Your task to perform on an android device: What's the news in Guyana? Image 0: 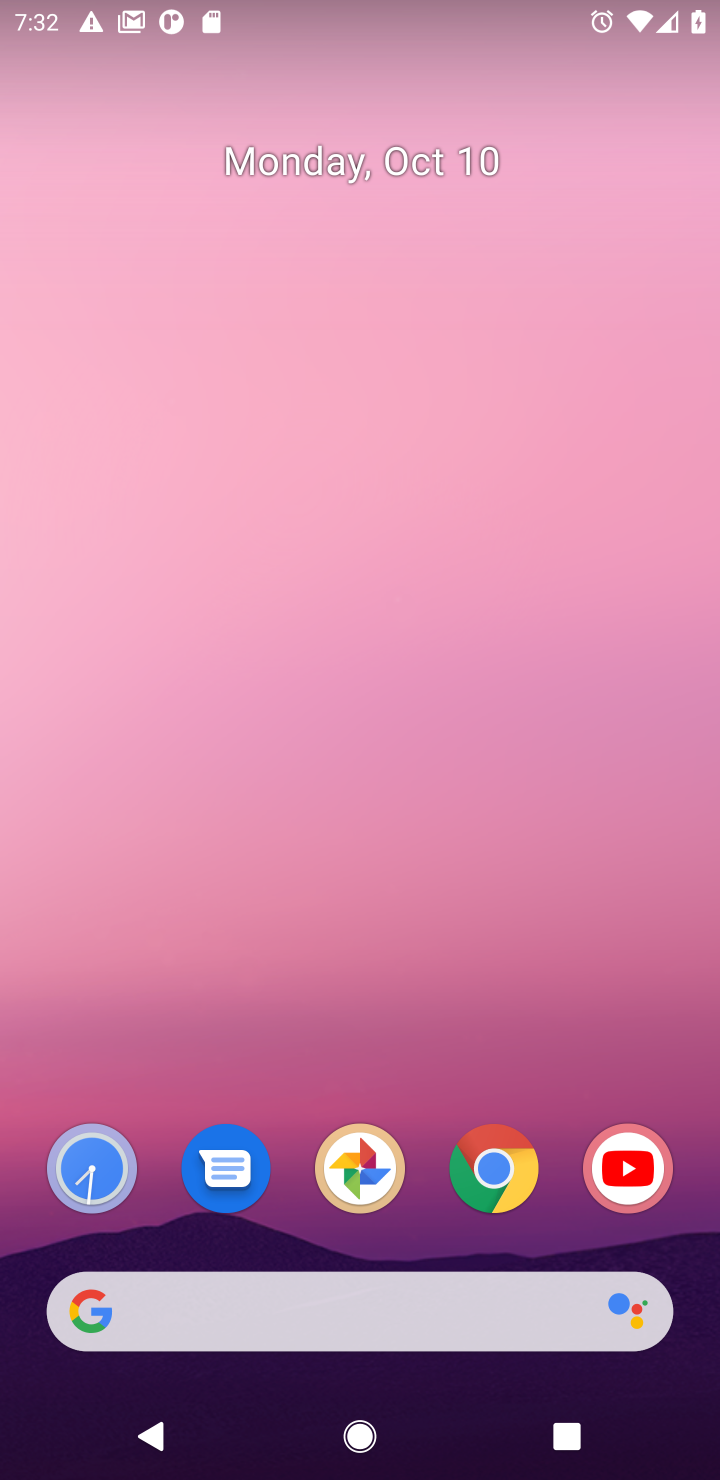
Step 0: click (262, 1316)
Your task to perform on an android device: What's the news in Guyana? Image 1: 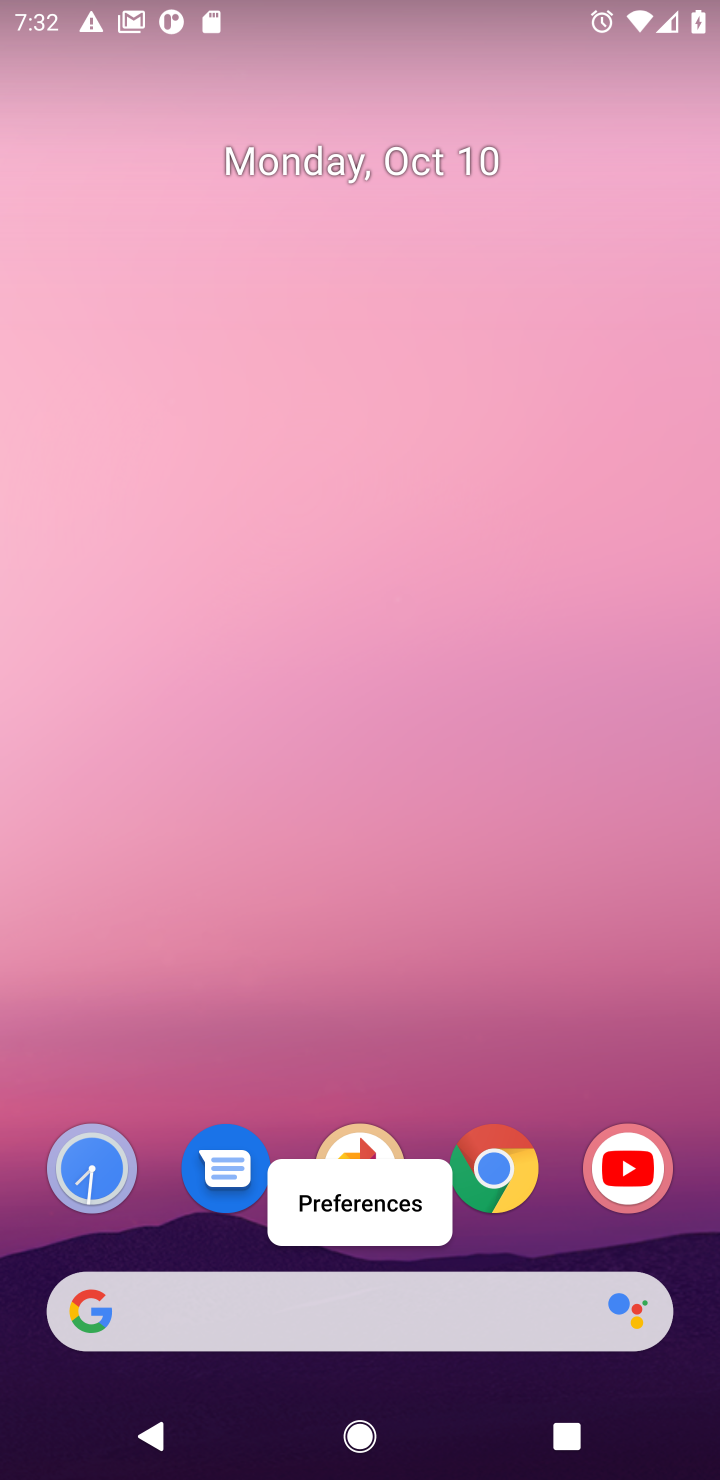
Step 1: click (168, 1289)
Your task to perform on an android device: What's the news in Guyana? Image 2: 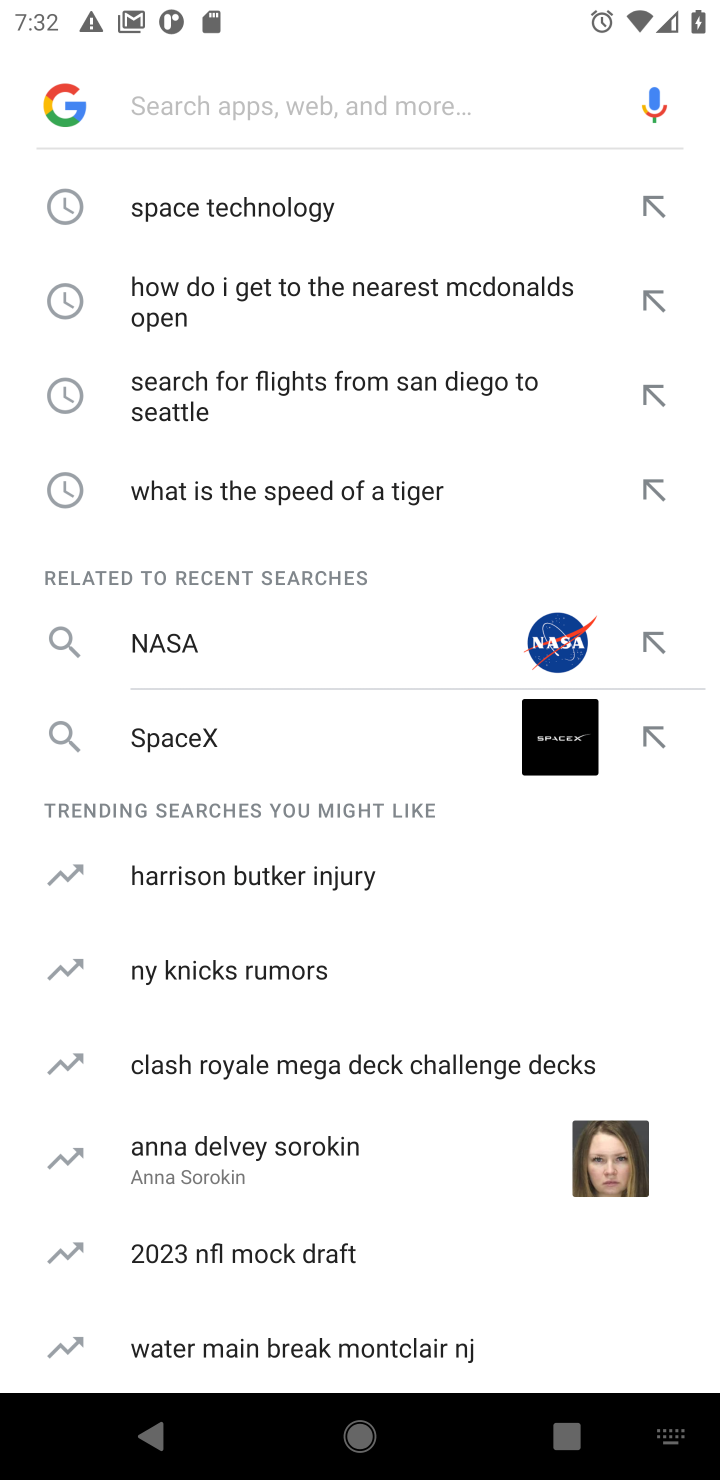
Step 2: type "guyana"
Your task to perform on an android device: What's the news in Guyana? Image 3: 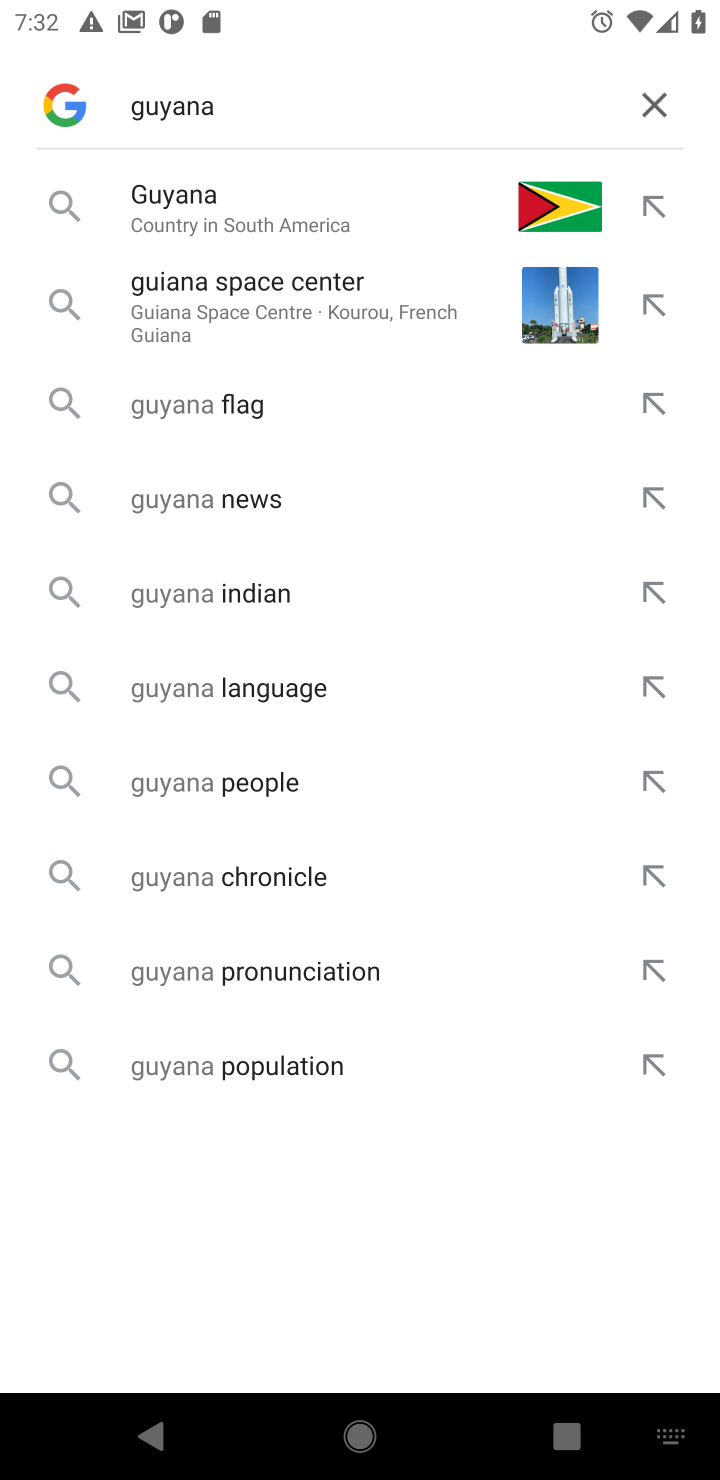
Step 3: click (173, 213)
Your task to perform on an android device: What's the news in Guyana? Image 4: 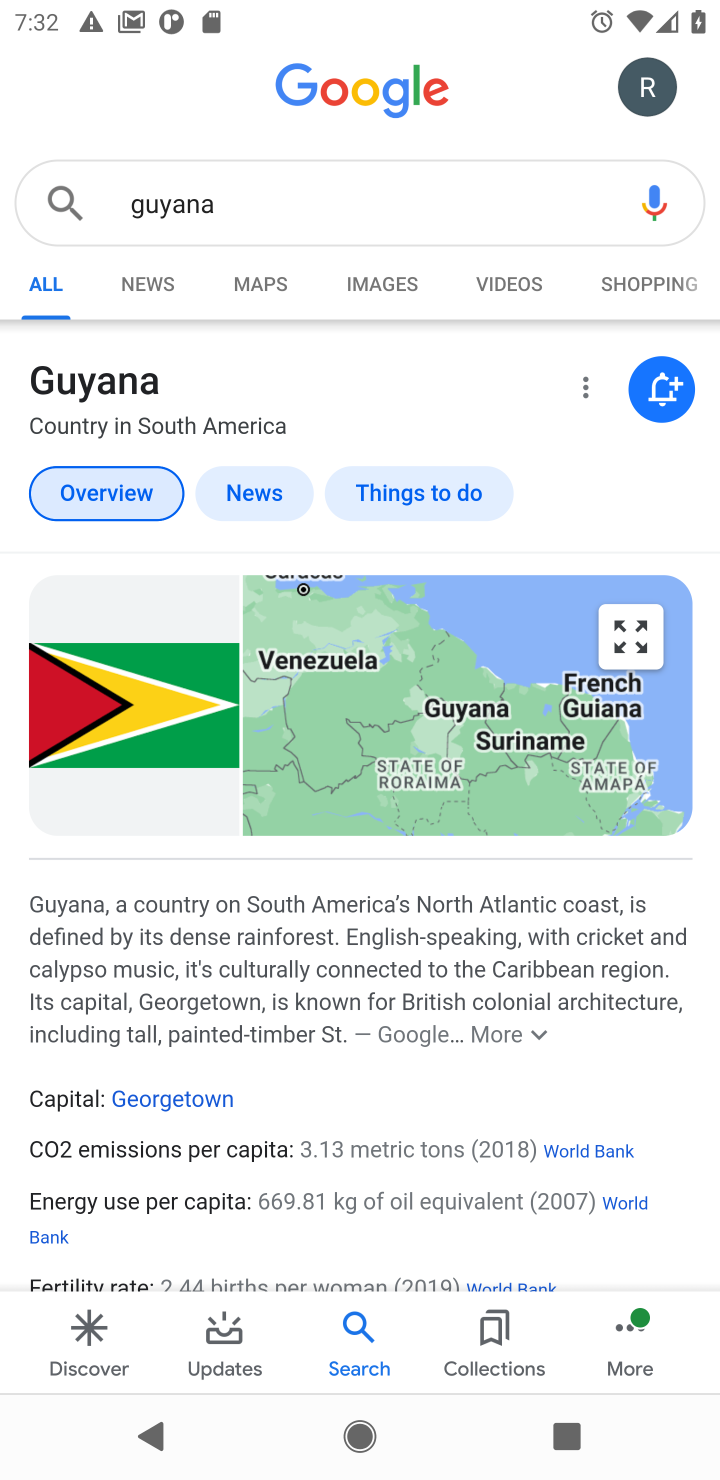
Step 4: click (149, 281)
Your task to perform on an android device: What's the news in Guyana? Image 5: 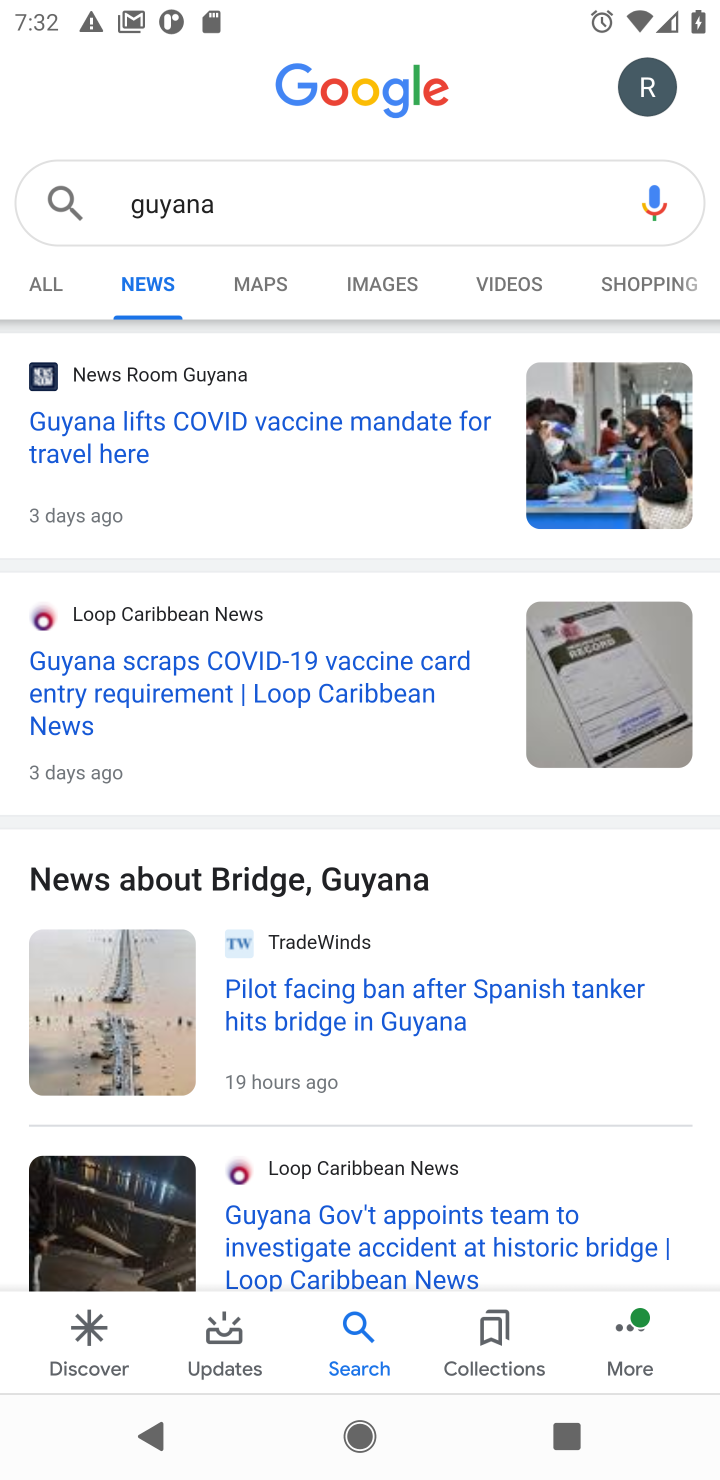
Step 5: click (184, 434)
Your task to perform on an android device: What's the news in Guyana? Image 6: 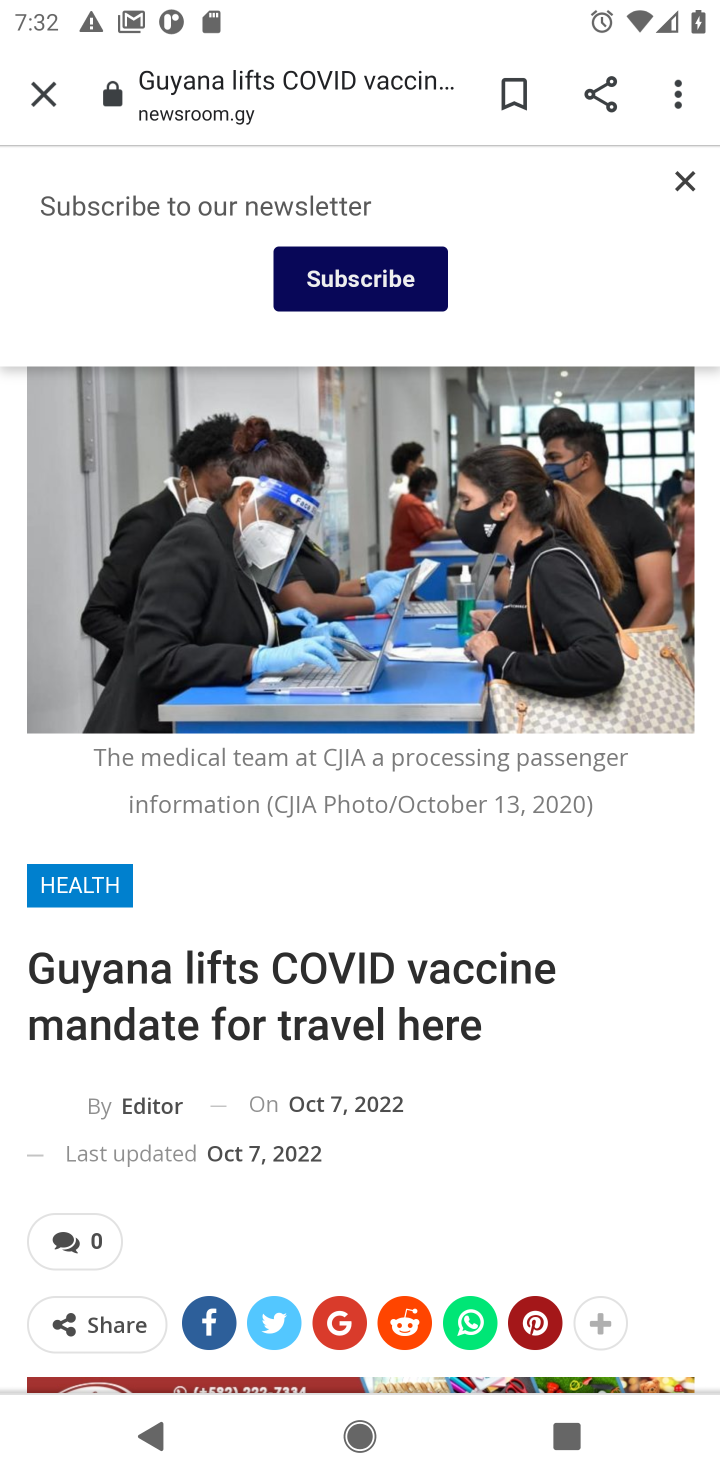
Step 6: task complete